Your task to perform on an android device: change the clock display to analog Image 0: 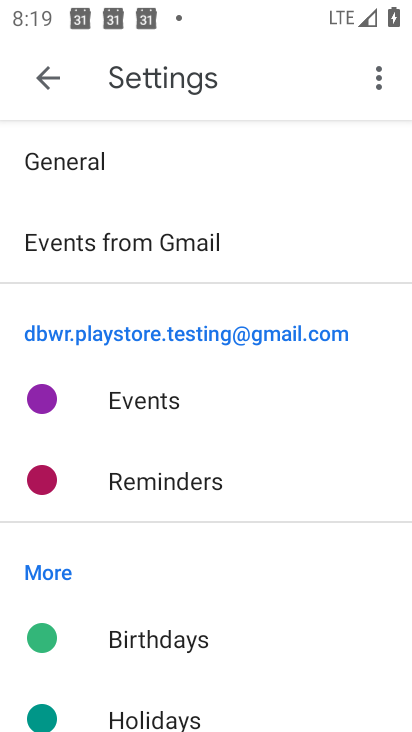
Step 0: press home button
Your task to perform on an android device: change the clock display to analog Image 1: 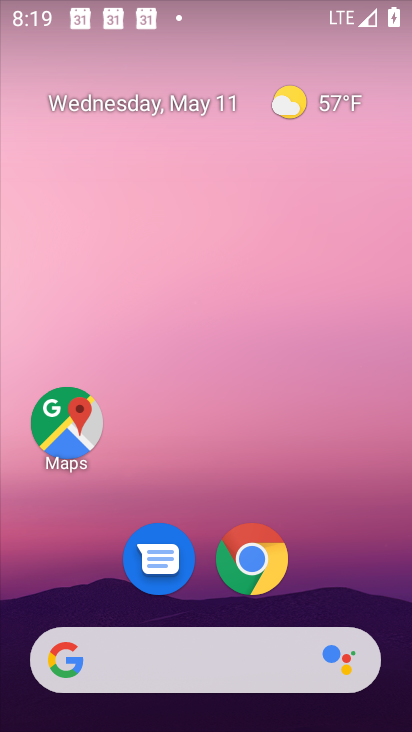
Step 1: drag from (344, 595) to (349, 123)
Your task to perform on an android device: change the clock display to analog Image 2: 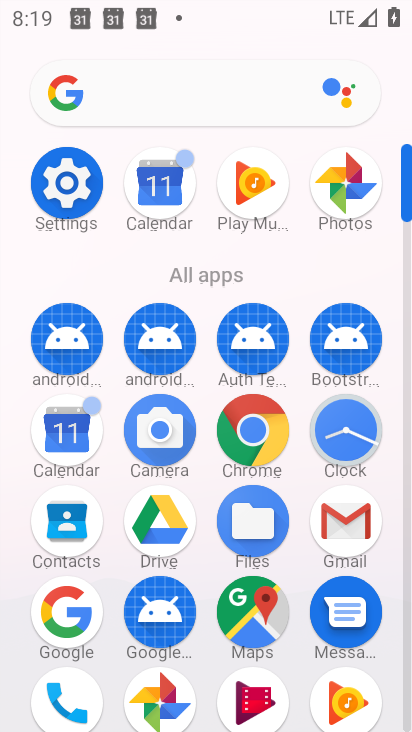
Step 2: click (345, 440)
Your task to perform on an android device: change the clock display to analog Image 3: 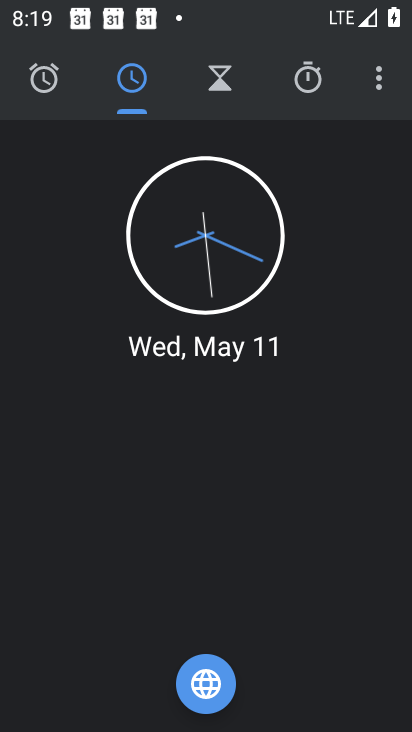
Step 3: click (371, 83)
Your task to perform on an android device: change the clock display to analog Image 4: 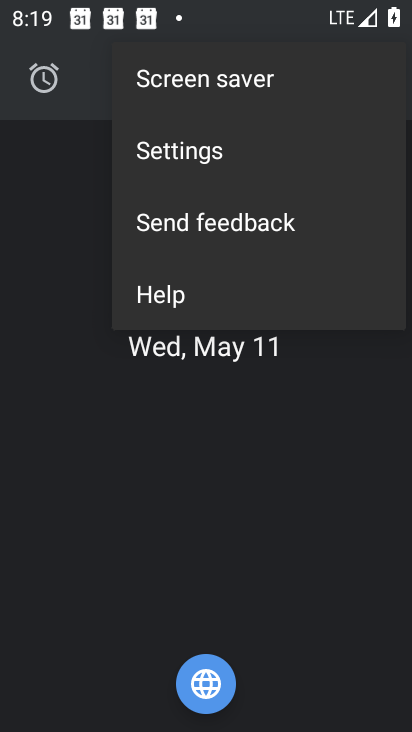
Step 4: click (278, 153)
Your task to perform on an android device: change the clock display to analog Image 5: 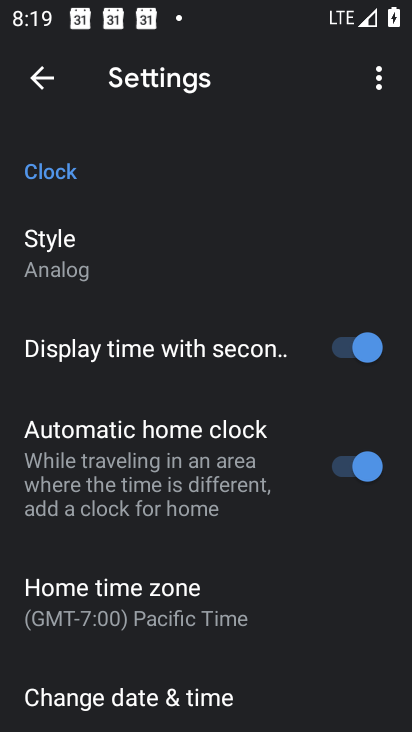
Step 5: task complete